Your task to perform on an android device: check storage Image 0: 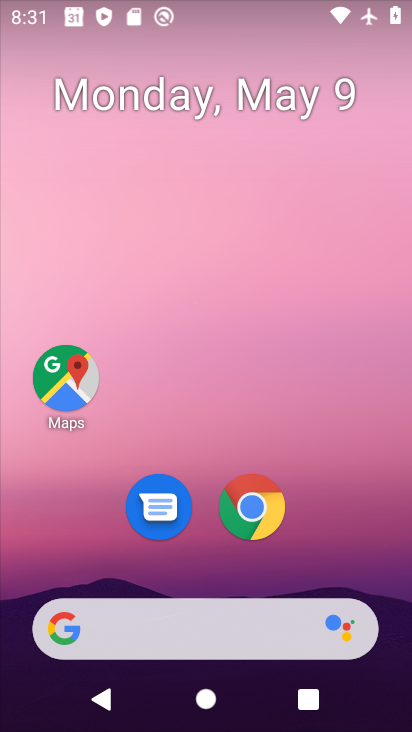
Step 0: drag from (185, 576) to (310, 37)
Your task to perform on an android device: check storage Image 1: 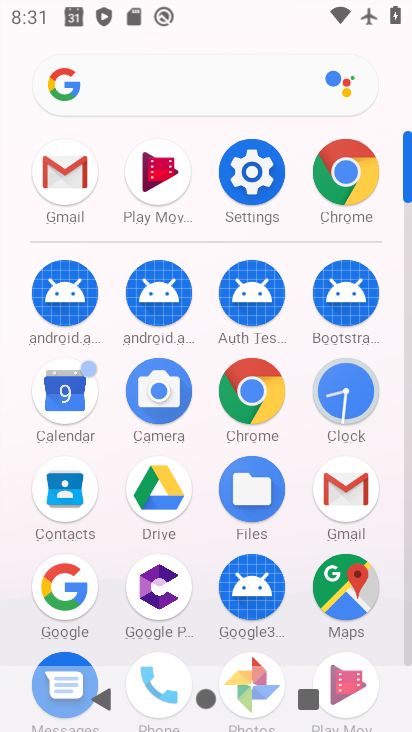
Step 1: click (256, 188)
Your task to perform on an android device: check storage Image 2: 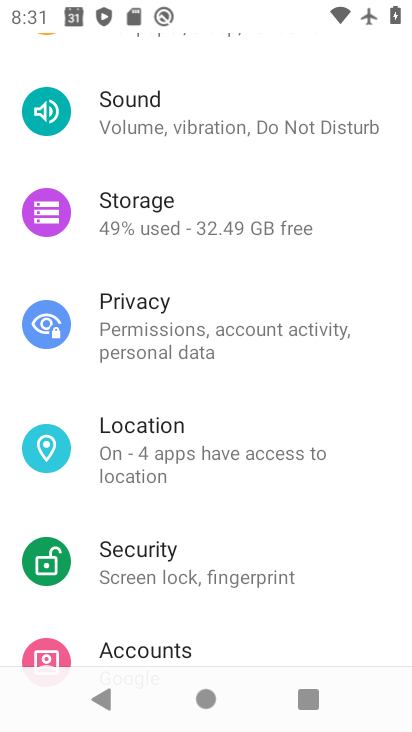
Step 2: click (140, 218)
Your task to perform on an android device: check storage Image 3: 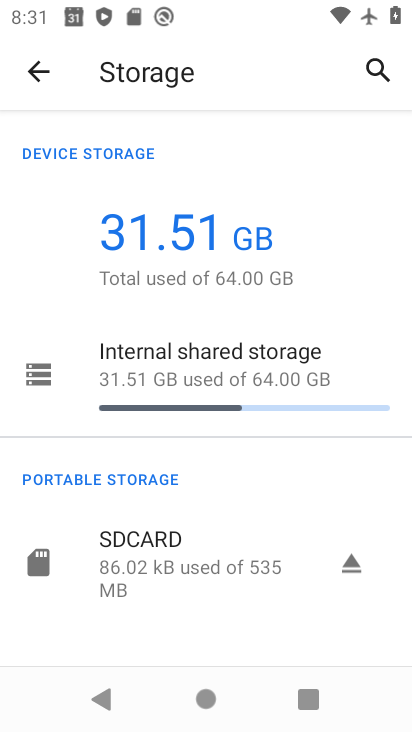
Step 3: click (270, 348)
Your task to perform on an android device: check storage Image 4: 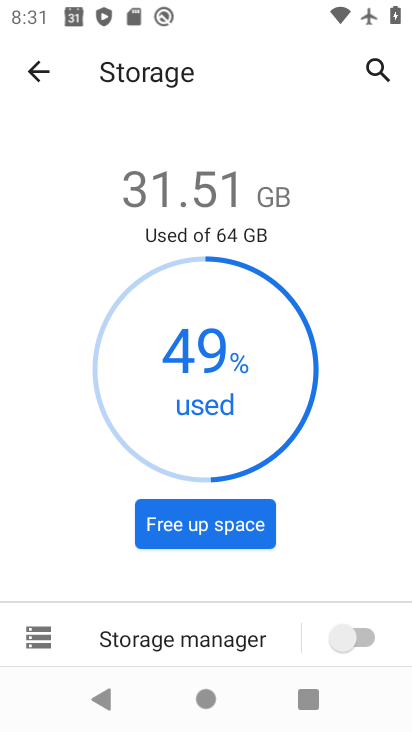
Step 4: task complete